Your task to perform on an android device: toggle show notifications on the lock screen Image 0: 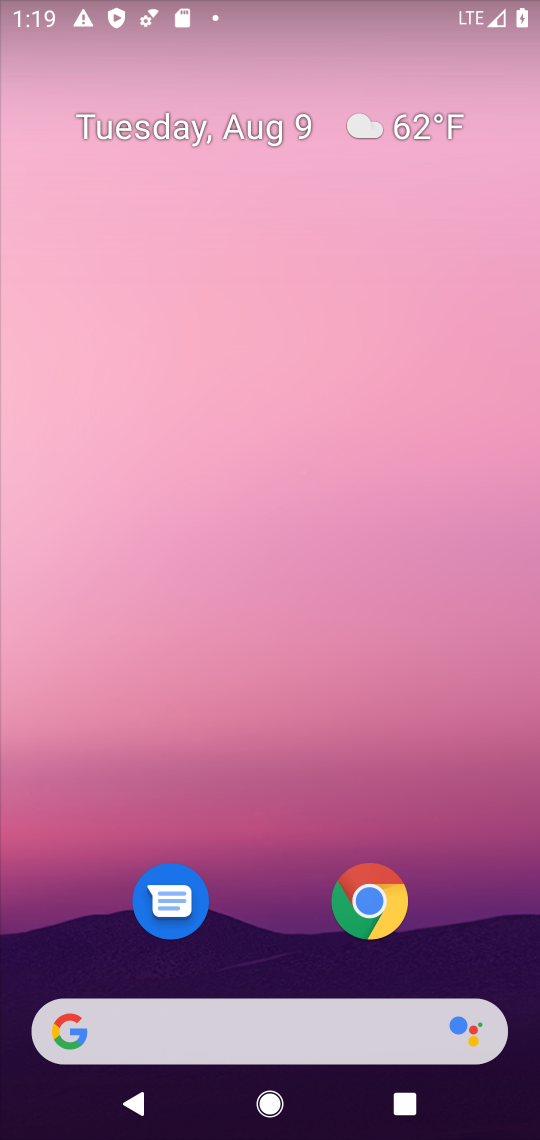
Step 0: drag from (520, 1020) to (450, 103)
Your task to perform on an android device: toggle show notifications on the lock screen Image 1: 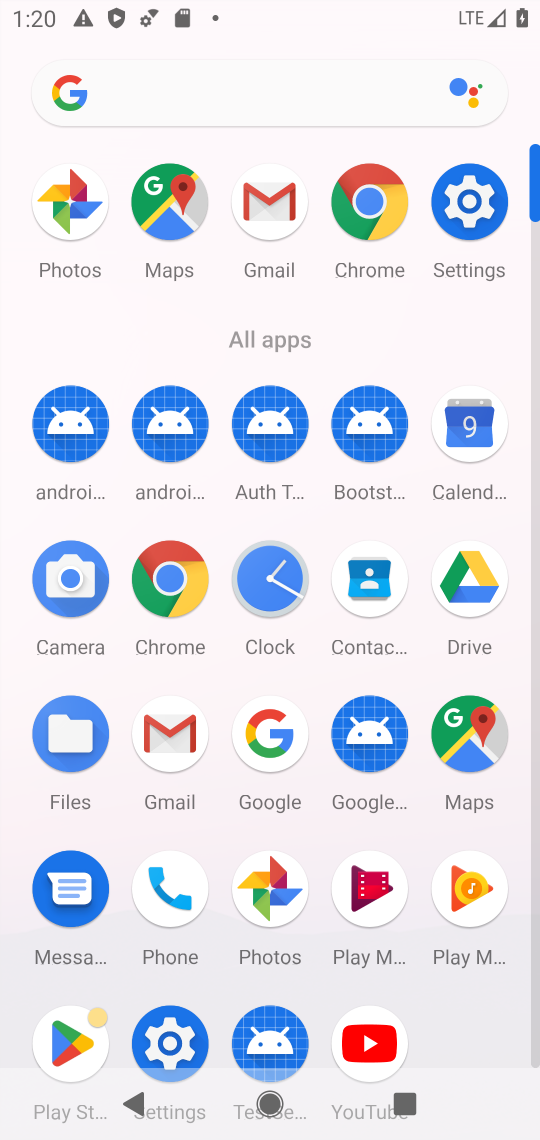
Step 1: click (168, 1034)
Your task to perform on an android device: toggle show notifications on the lock screen Image 2: 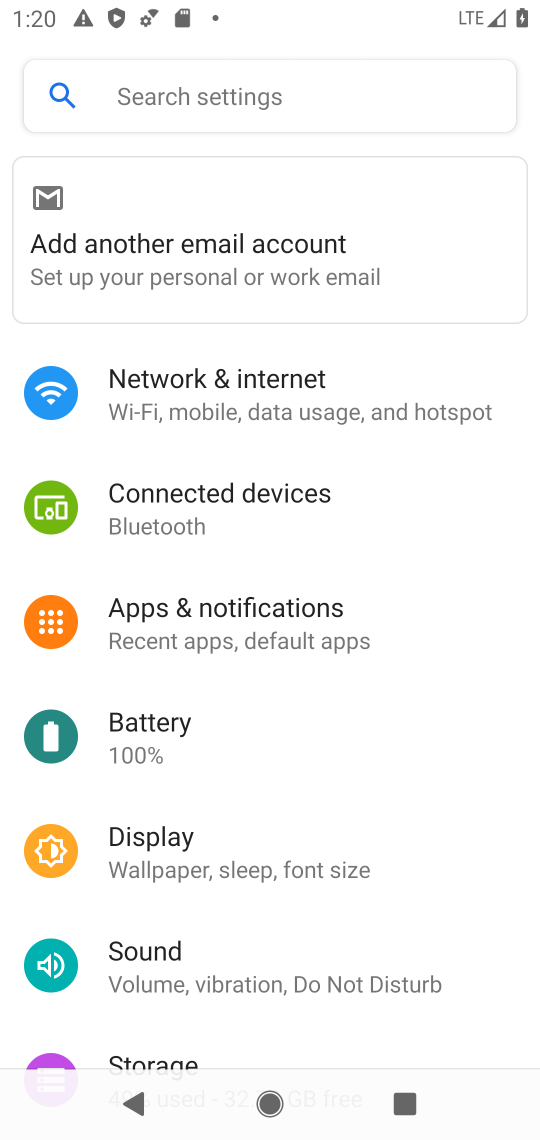
Step 2: click (235, 621)
Your task to perform on an android device: toggle show notifications on the lock screen Image 3: 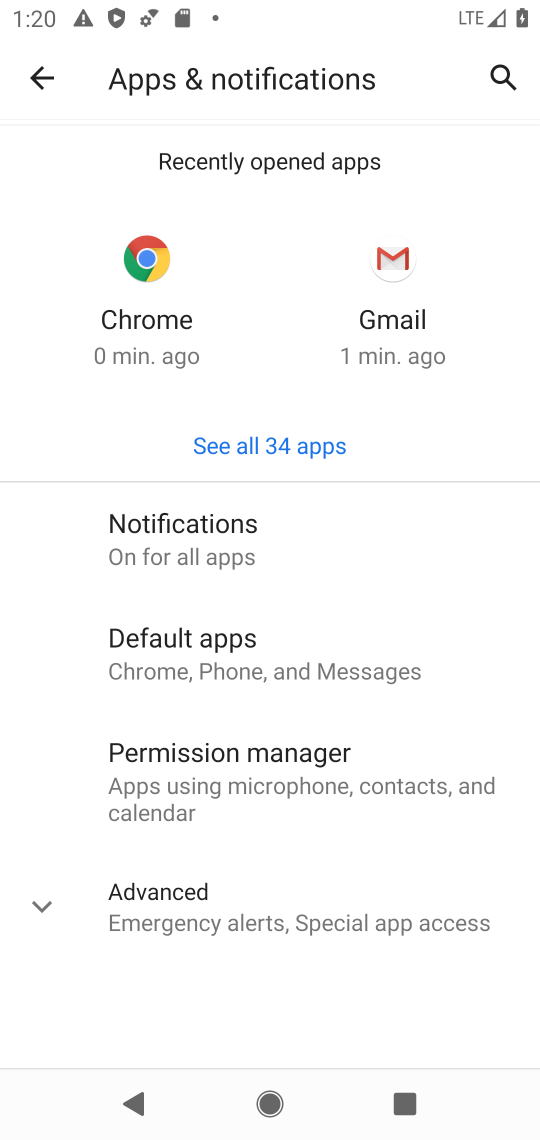
Step 3: click (142, 536)
Your task to perform on an android device: toggle show notifications on the lock screen Image 4: 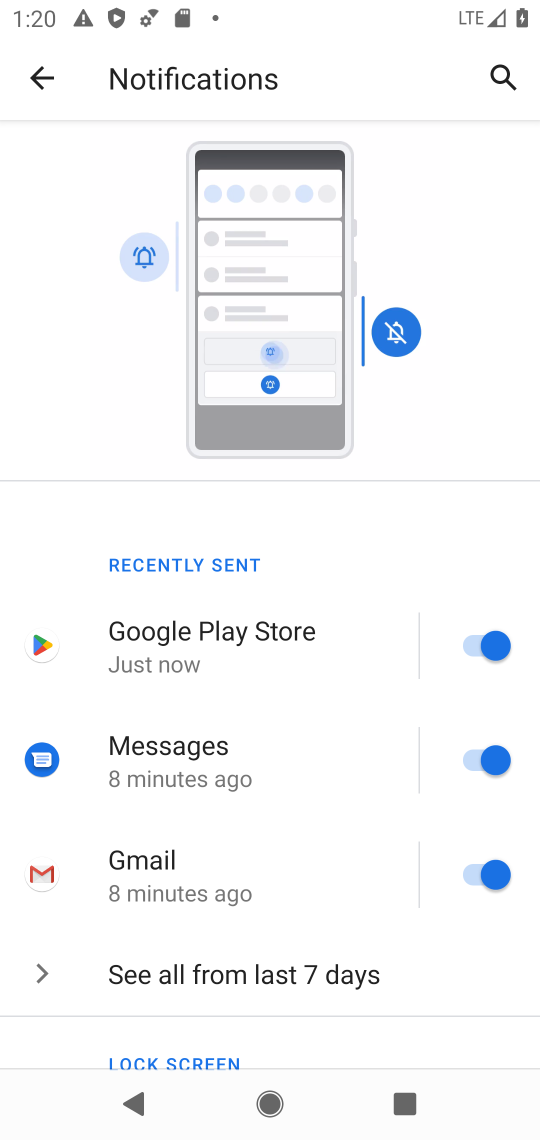
Step 4: drag from (406, 946) to (421, 310)
Your task to perform on an android device: toggle show notifications on the lock screen Image 5: 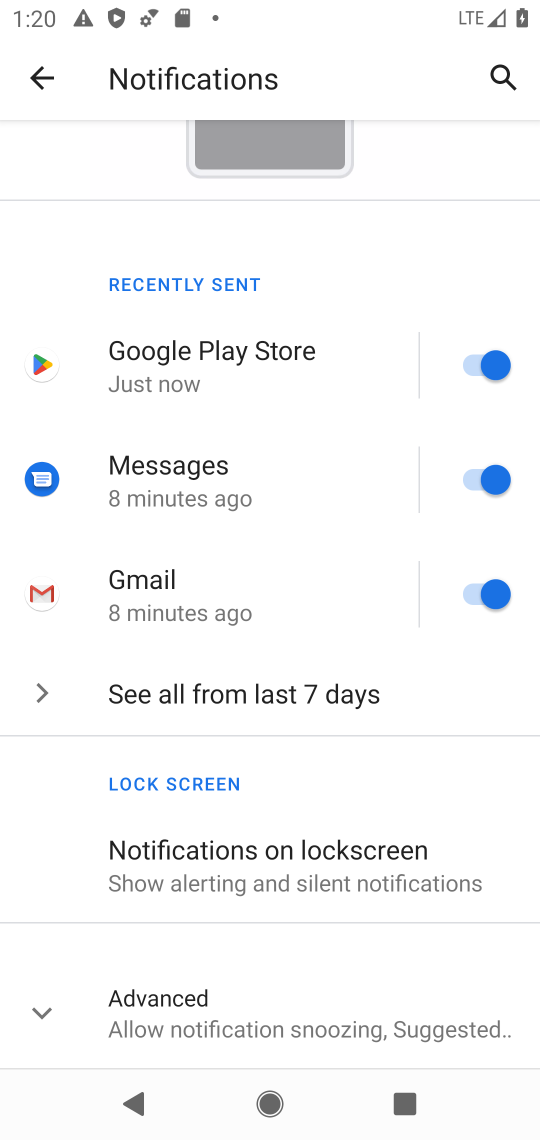
Step 5: click (270, 865)
Your task to perform on an android device: toggle show notifications on the lock screen Image 6: 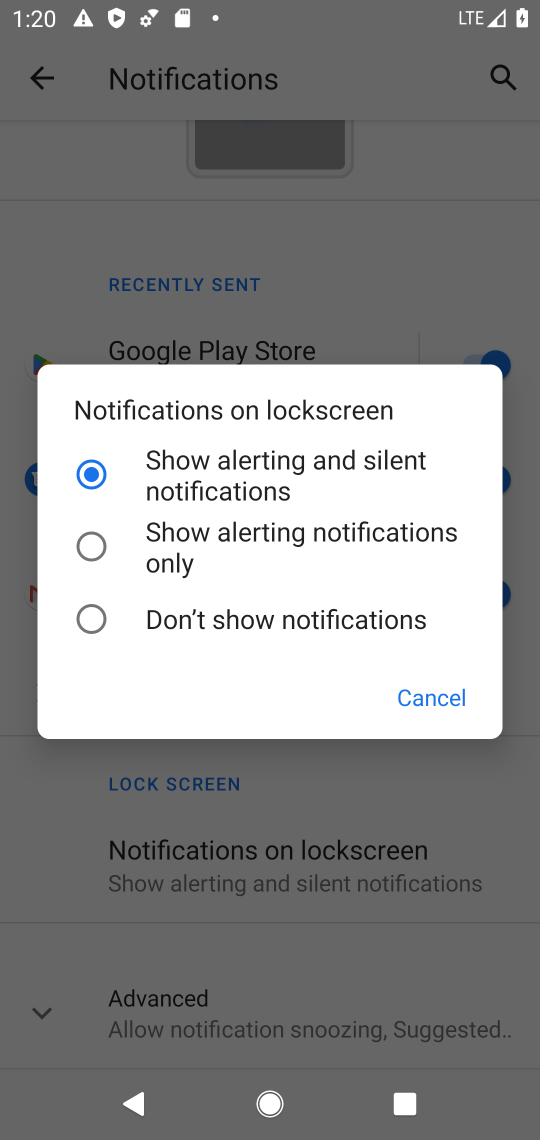
Step 6: click (88, 543)
Your task to perform on an android device: toggle show notifications on the lock screen Image 7: 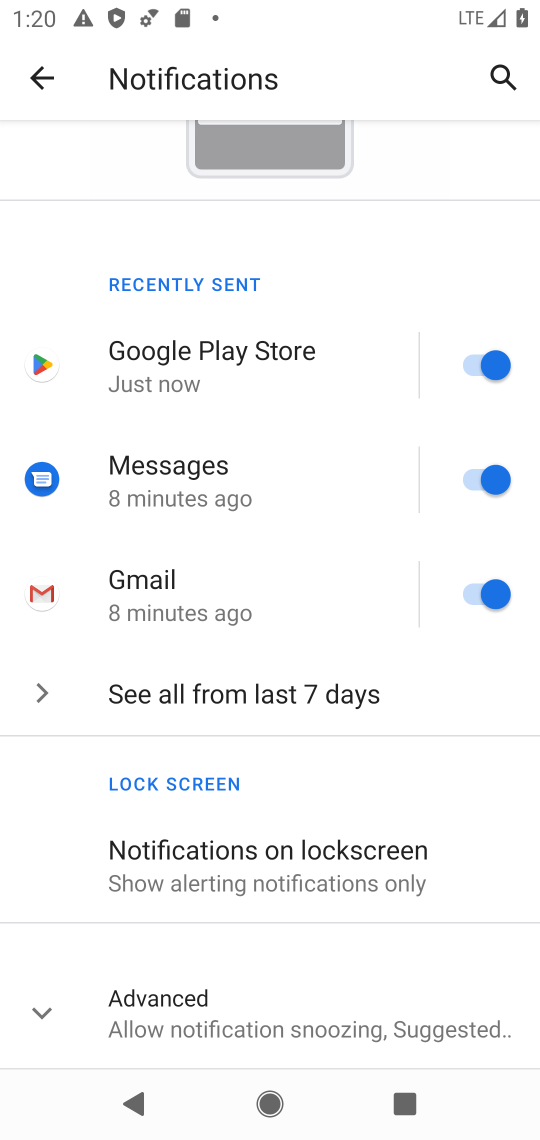
Step 7: task complete